Your task to perform on an android device: open chrome privacy settings Image 0: 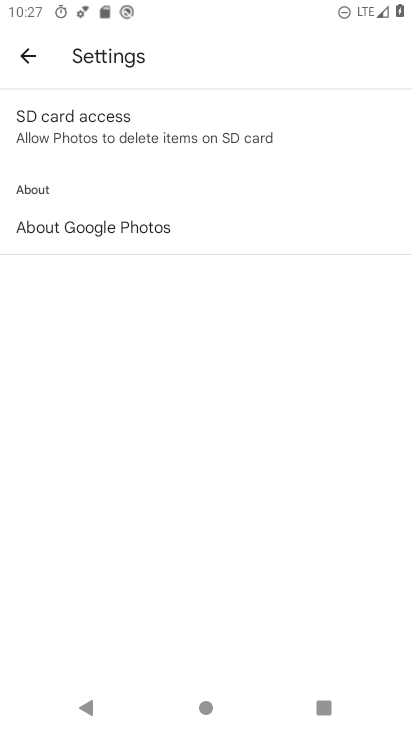
Step 0: press home button
Your task to perform on an android device: open chrome privacy settings Image 1: 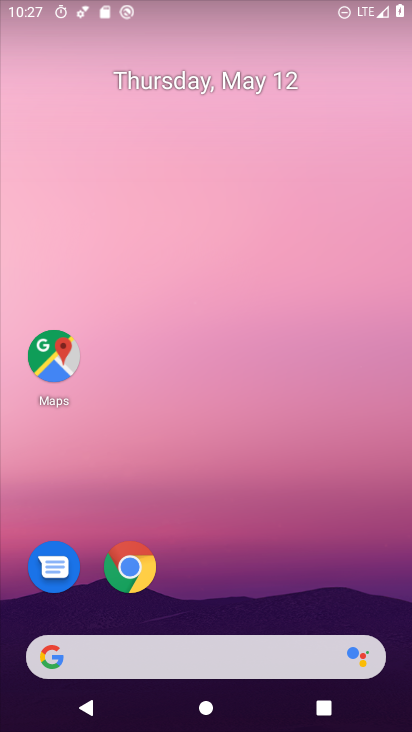
Step 1: drag from (200, 606) to (208, 300)
Your task to perform on an android device: open chrome privacy settings Image 2: 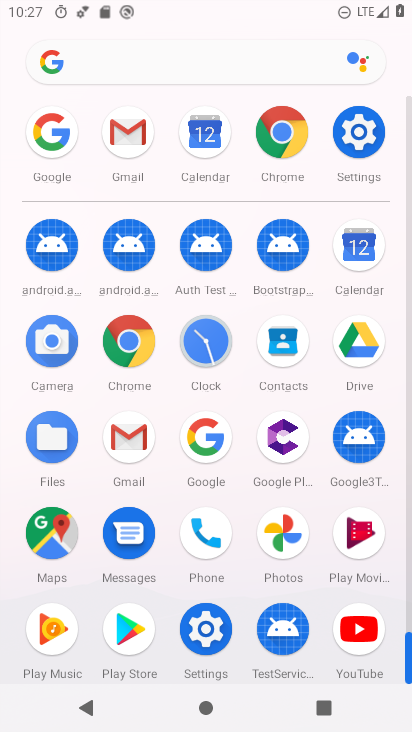
Step 2: click (144, 371)
Your task to perform on an android device: open chrome privacy settings Image 3: 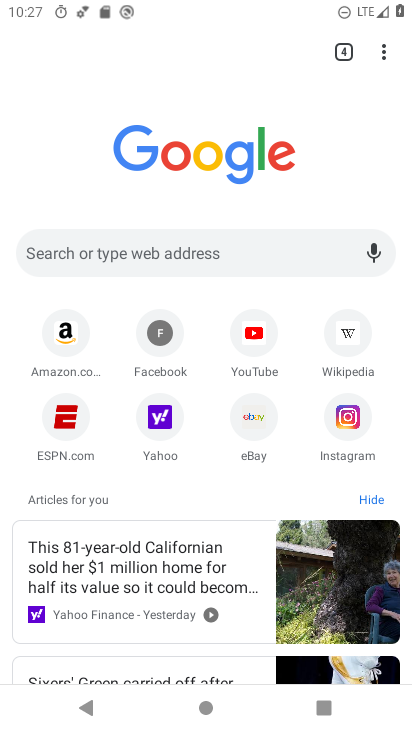
Step 3: click (391, 56)
Your task to perform on an android device: open chrome privacy settings Image 4: 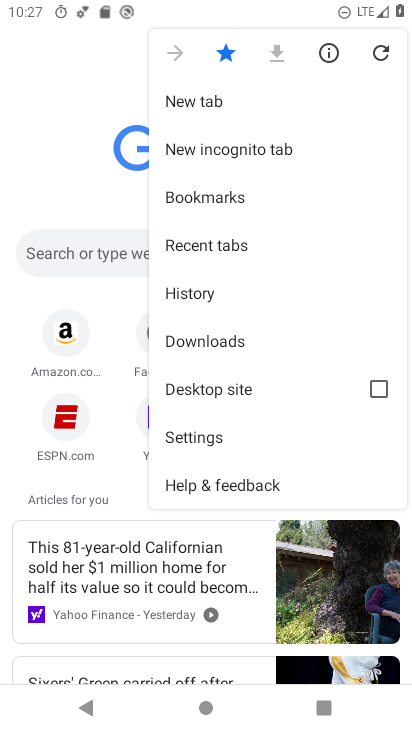
Step 4: drag from (233, 428) to (256, 274)
Your task to perform on an android device: open chrome privacy settings Image 5: 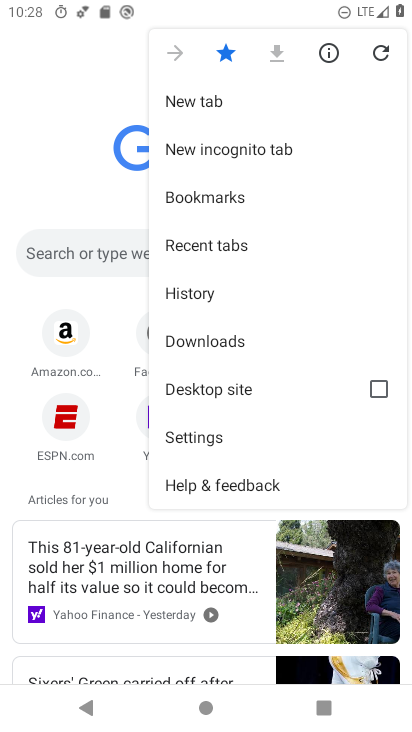
Step 5: click (233, 443)
Your task to perform on an android device: open chrome privacy settings Image 6: 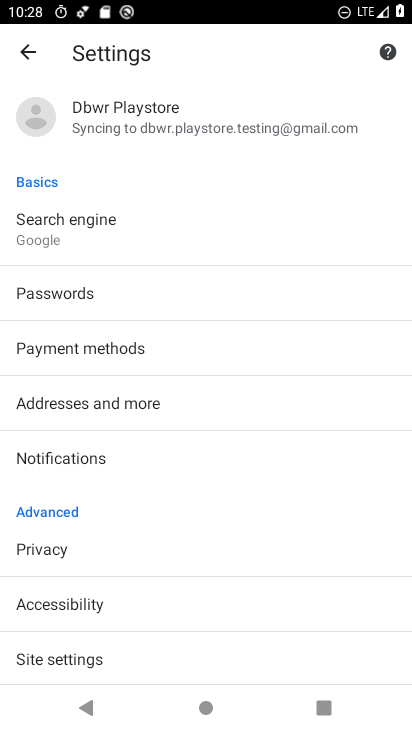
Step 6: drag from (179, 523) to (191, 389)
Your task to perform on an android device: open chrome privacy settings Image 7: 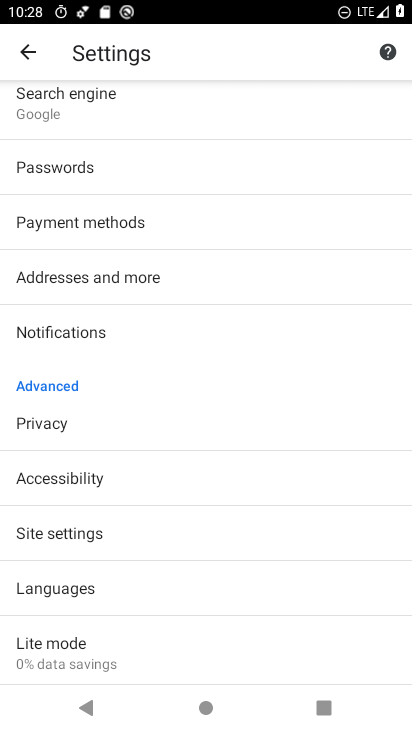
Step 7: click (49, 425)
Your task to perform on an android device: open chrome privacy settings Image 8: 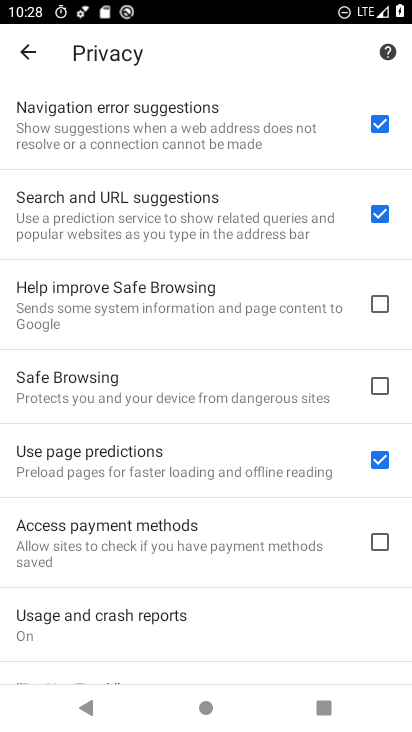
Step 8: task complete